Your task to perform on an android device: open app "Gmail" Image 0: 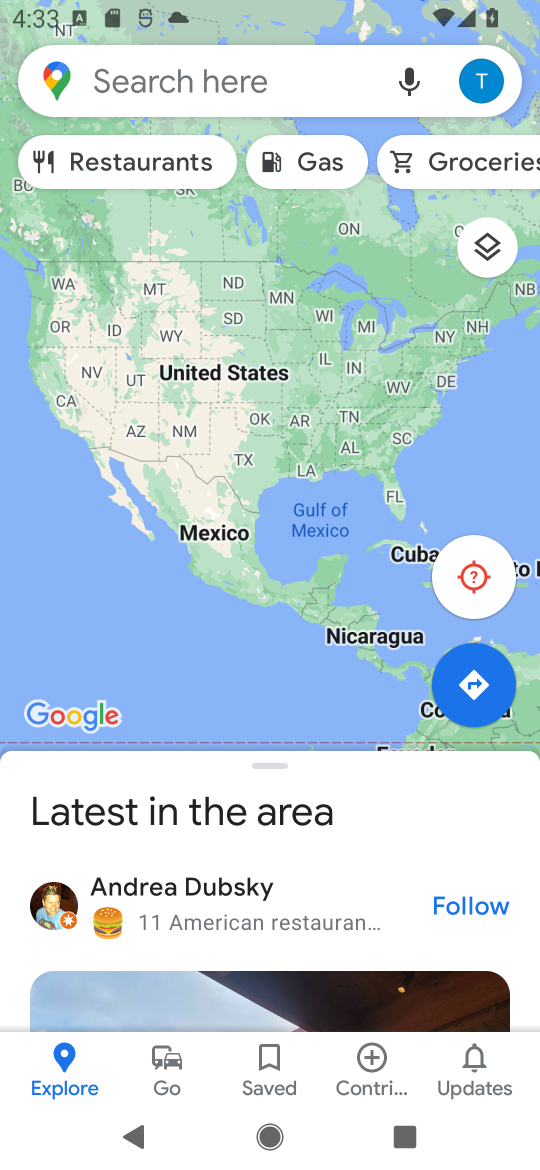
Step 0: press home button
Your task to perform on an android device: open app "Gmail" Image 1: 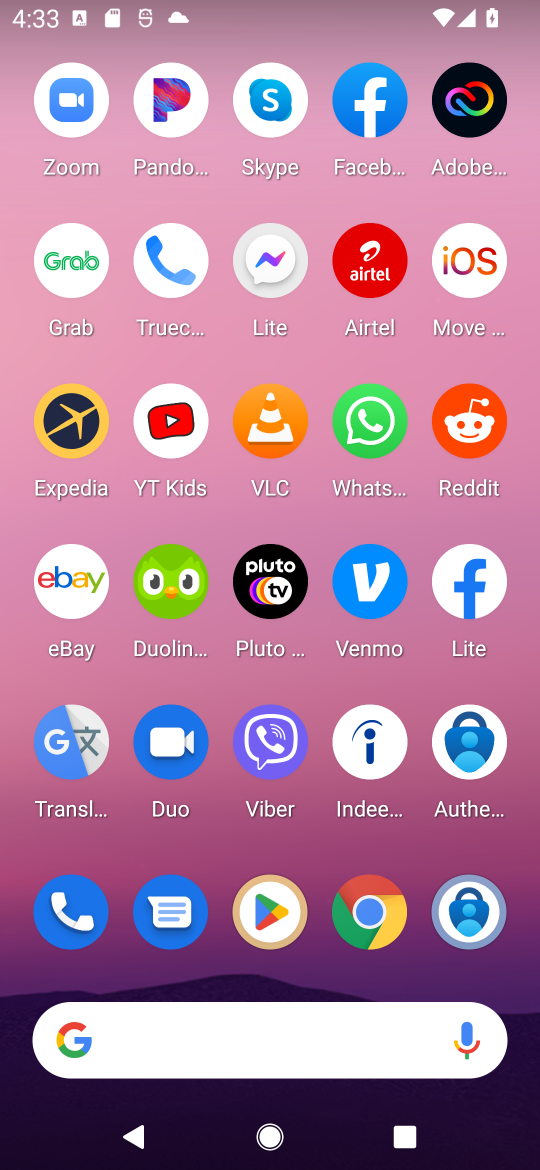
Step 1: drag from (203, 957) to (212, 233)
Your task to perform on an android device: open app "Gmail" Image 2: 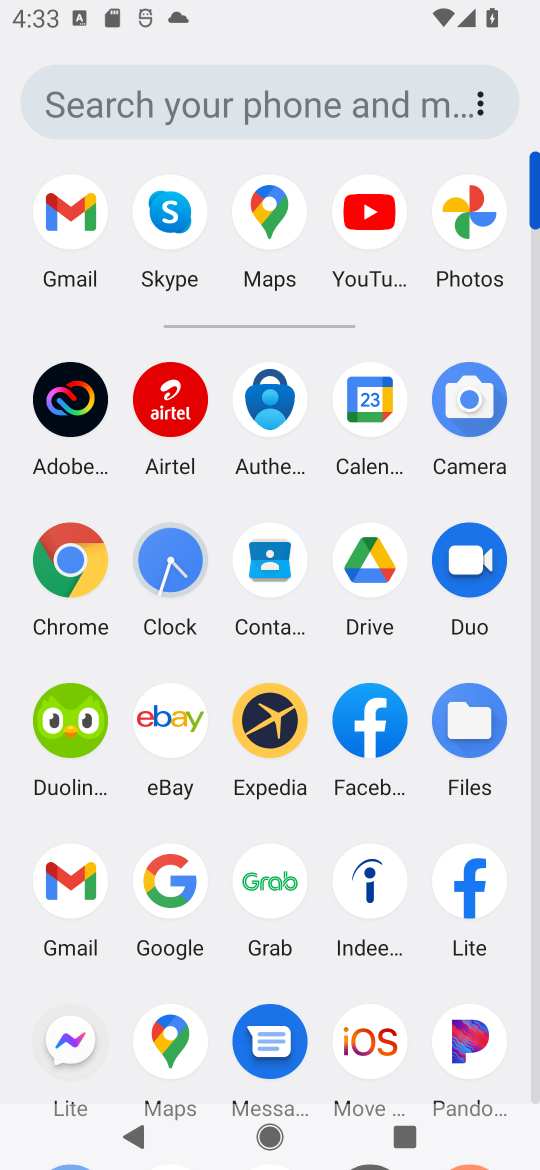
Step 2: drag from (317, 908) to (298, 416)
Your task to perform on an android device: open app "Gmail" Image 3: 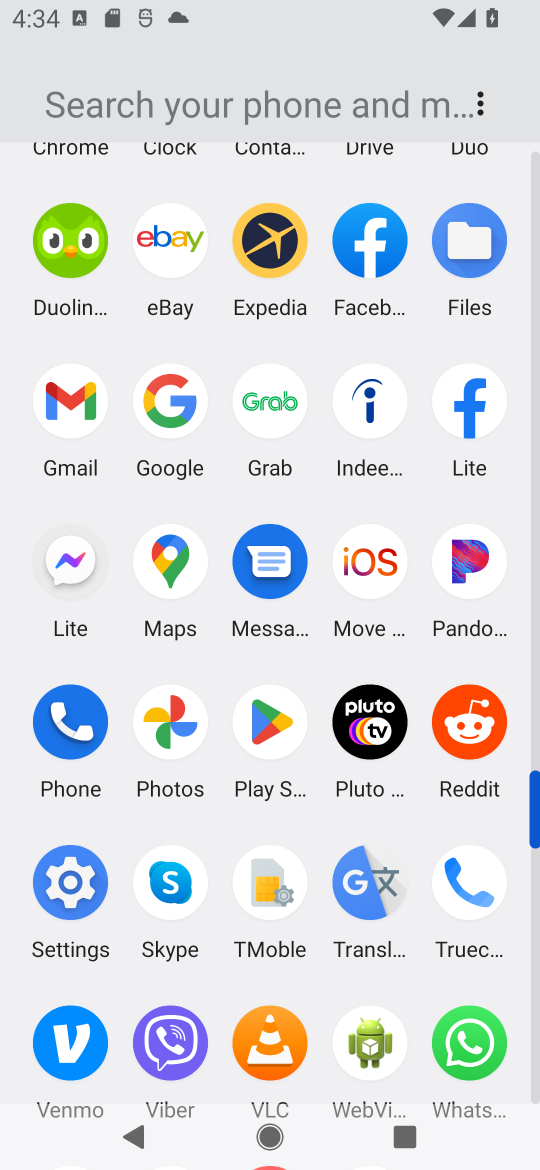
Step 3: click (264, 725)
Your task to perform on an android device: open app "Gmail" Image 4: 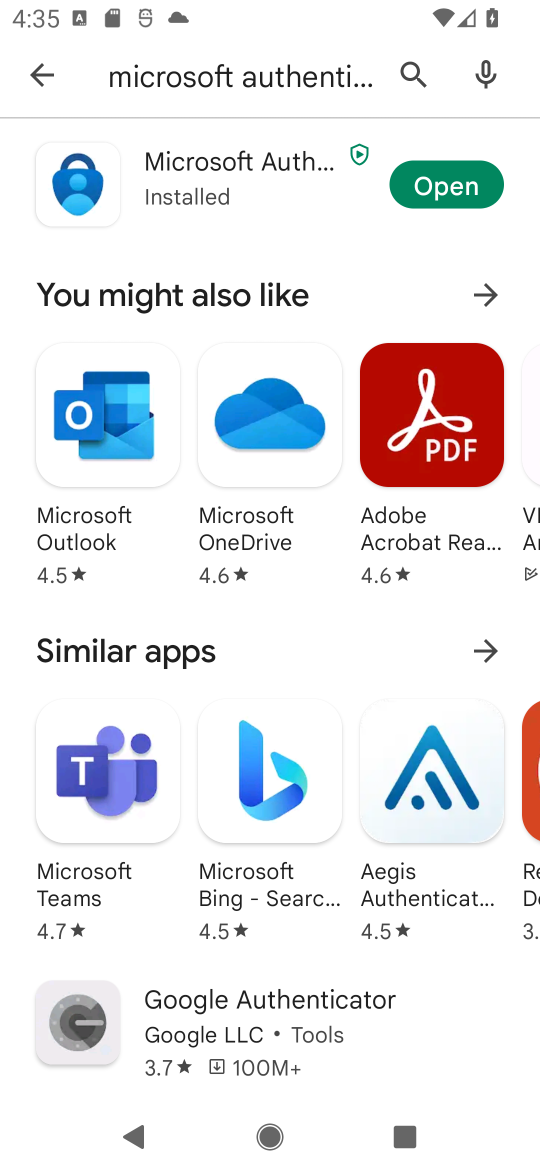
Step 4: press back button
Your task to perform on an android device: open app "Gmail" Image 5: 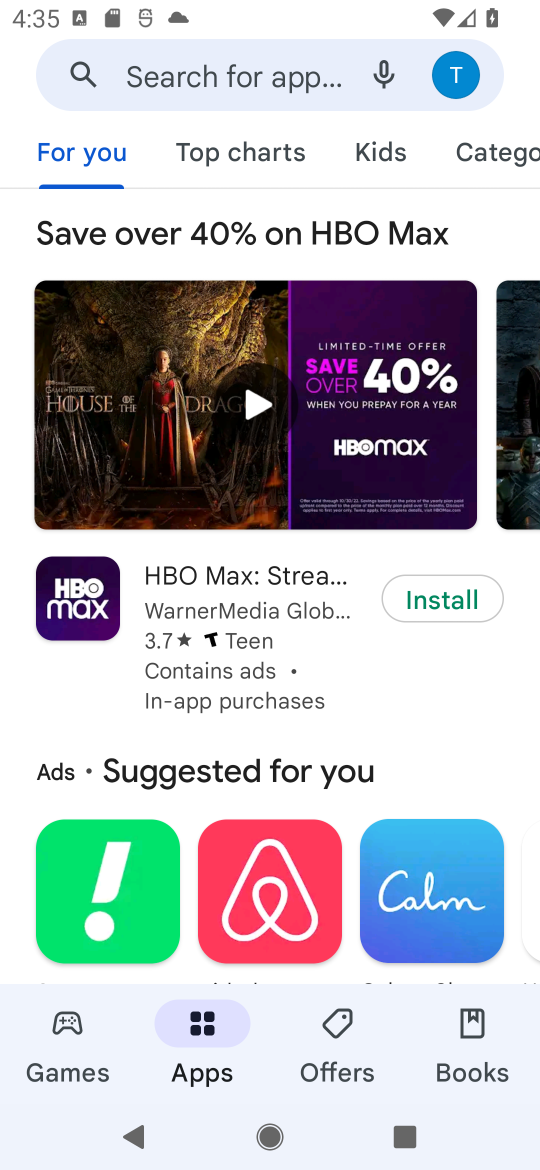
Step 5: click (255, 60)
Your task to perform on an android device: open app "Gmail" Image 6: 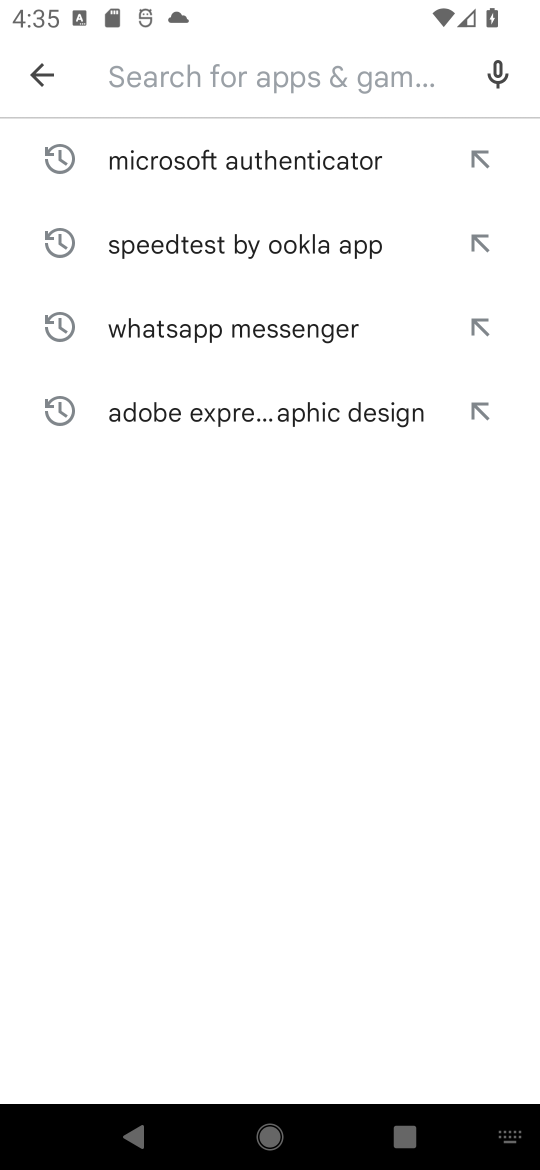
Step 6: type "Gmail"
Your task to perform on an android device: open app "Gmail" Image 7: 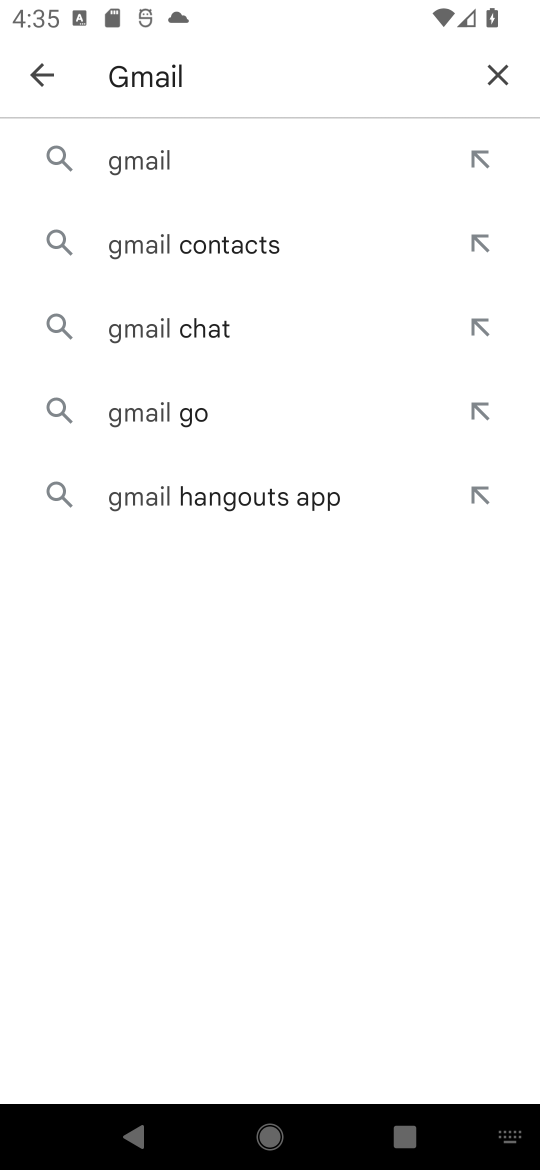
Step 7: click (140, 175)
Your task to perform on an android device: open app "Gmail" Image 8: 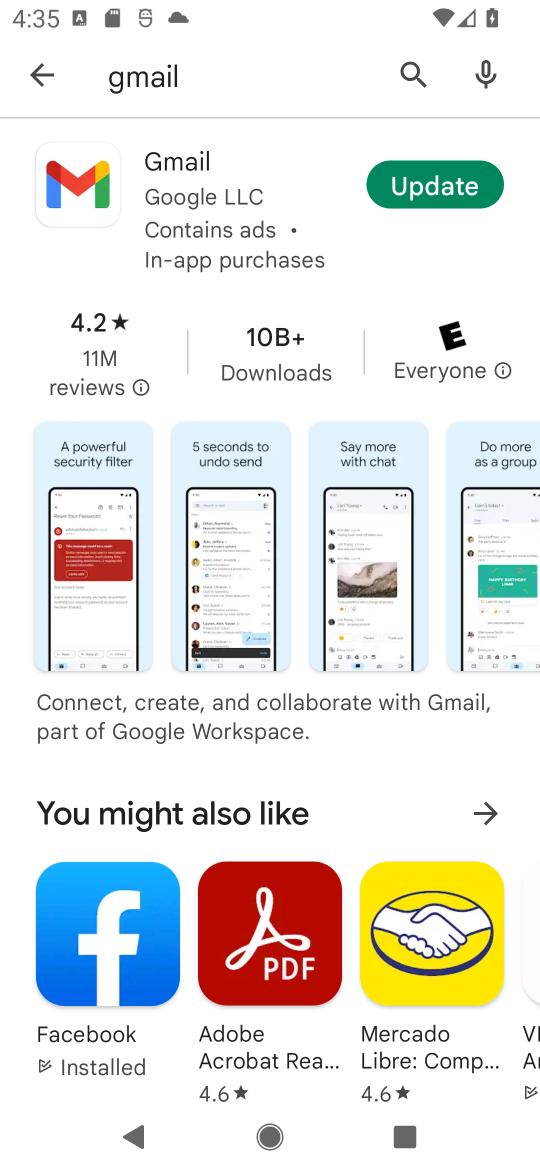
Step 8: click (198, 194)
Your task to perform on an android device: open app "Gmail" Image 9: 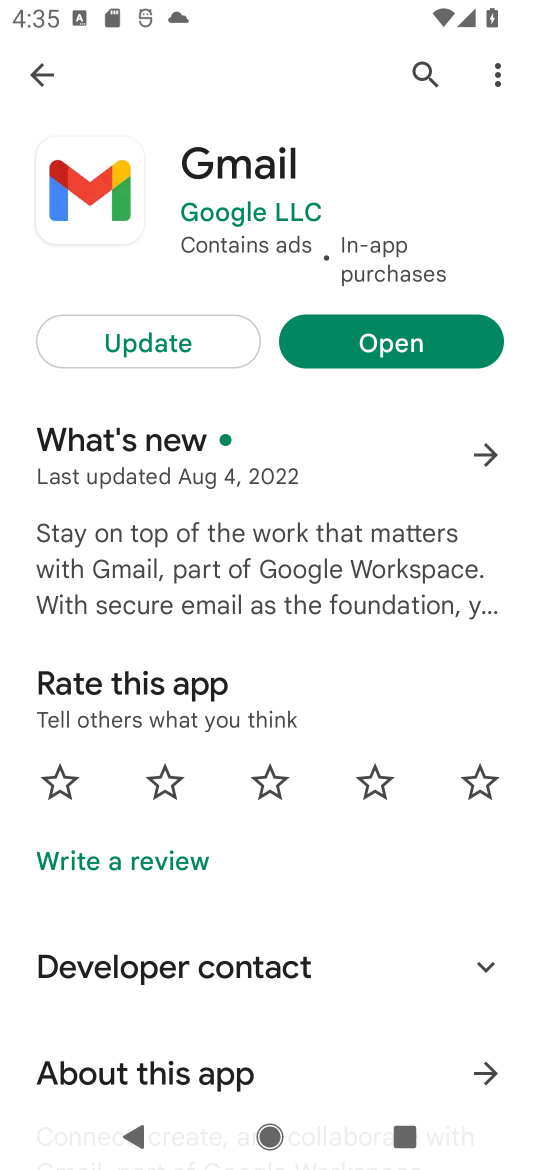
Step 9: click (397, 342)
Your task to perform on an android device: open app "Gmail" Image 10: 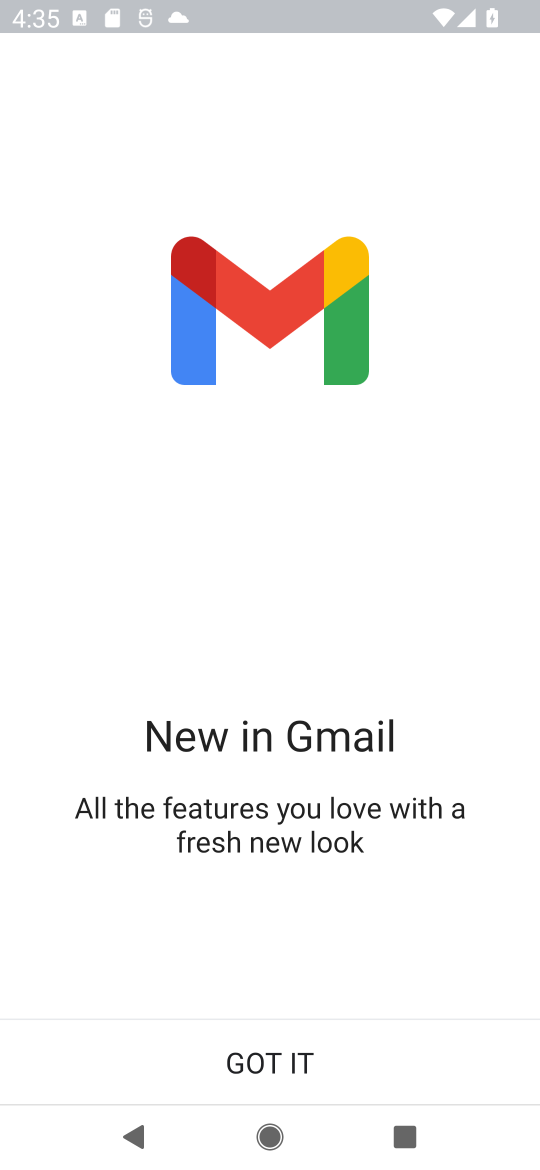
Step 10: click (241, 1060)
Your task to perform on an android device: open app "Gmail" Image 11: 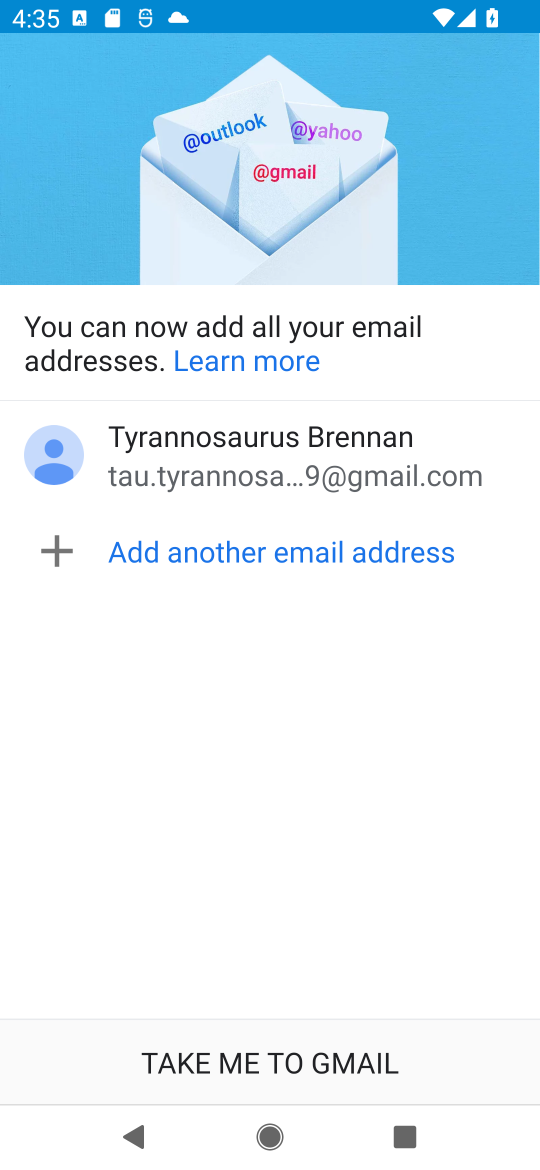
Step 11: click (241, 1060)
Your task to perform on an android device: open app "Gmail" Image 12: 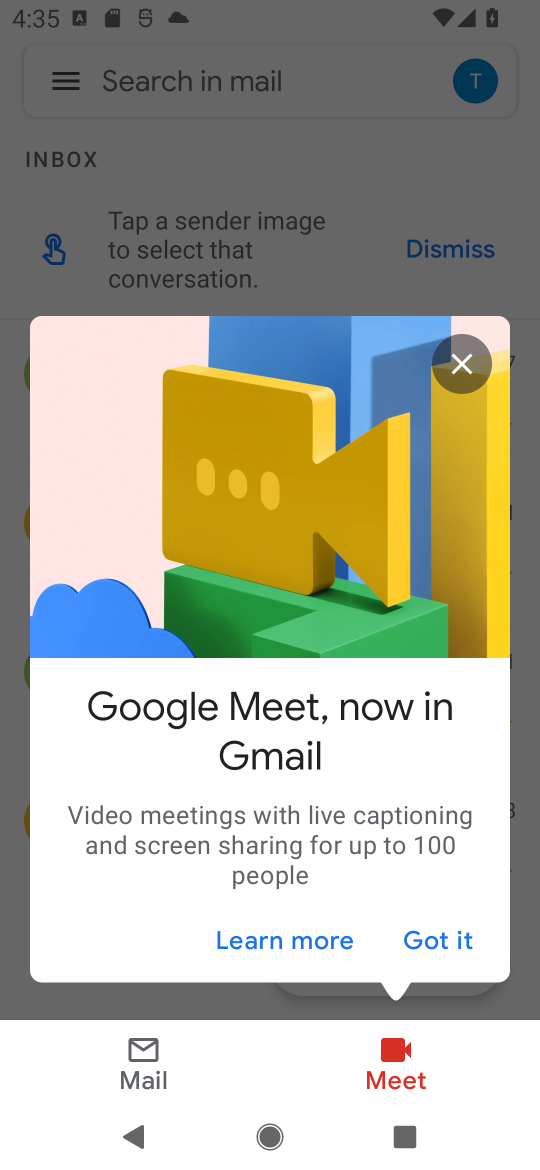
Step 12: click (433, 942)
Your task to perform on an android device: open app "Gmail" Image 13: 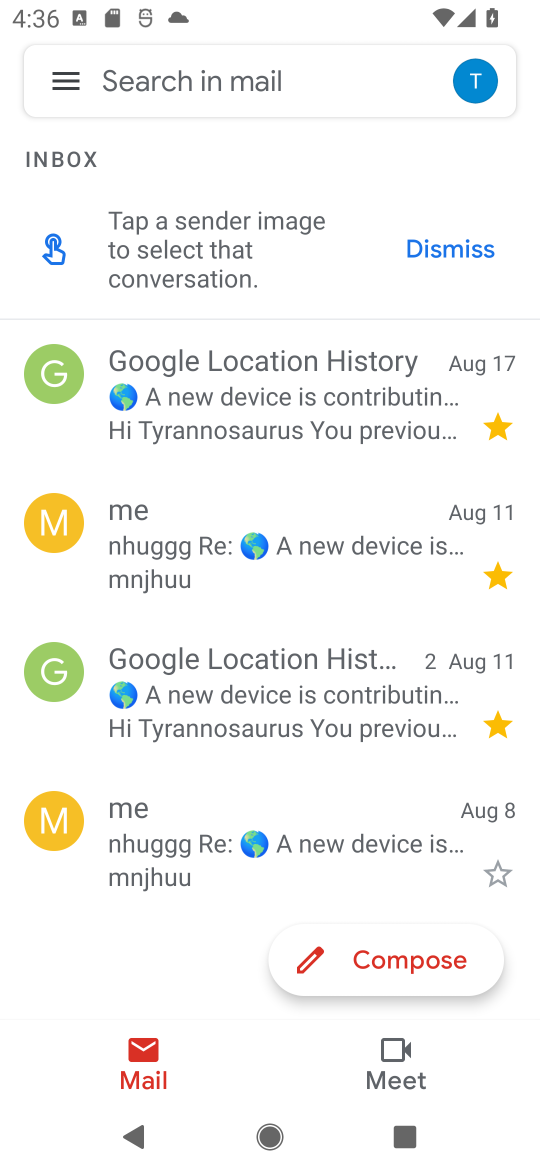
Step 13: task complete